Your task to perform on an android device: Go to wifi settings Image 0: 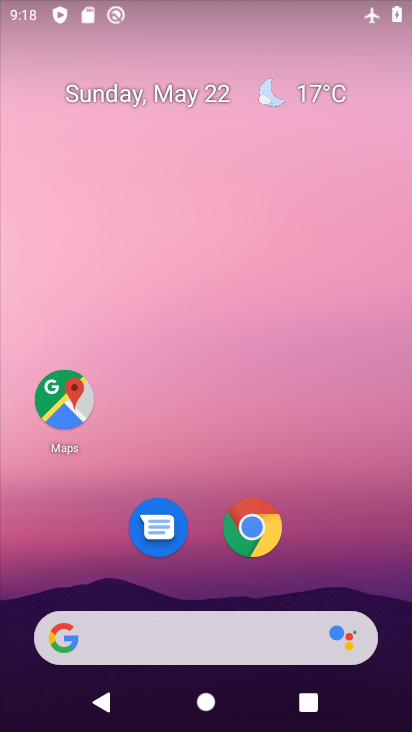
Step 0: drag from (323, 536) to (289, 30)
Your task to perform on an android device: Go to wifi settings Image 1: 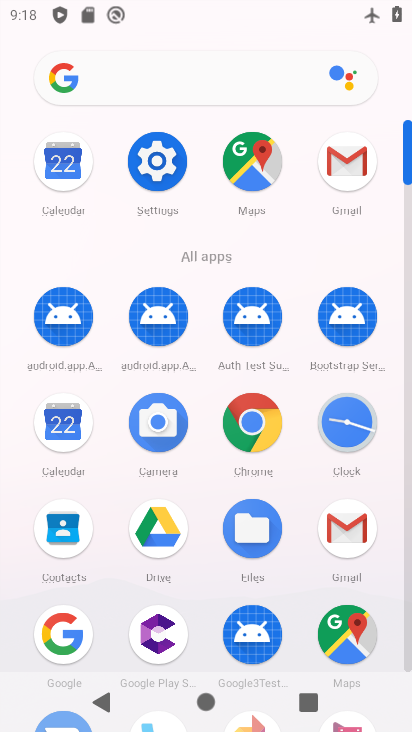
Step 1: click (162, 163)
Your task to perform on an android device: Go to wifi settings Image 2: 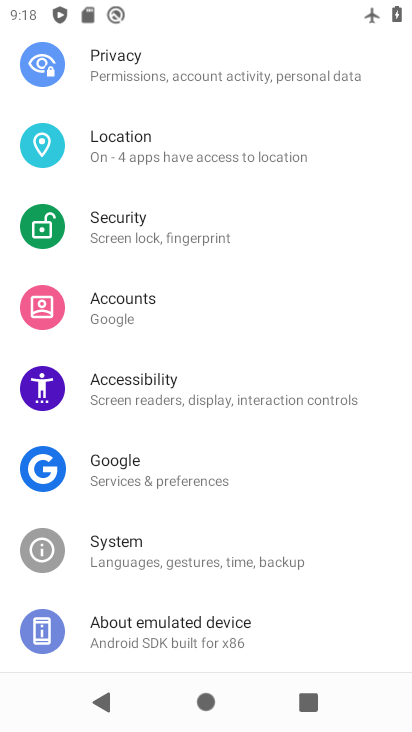
Step 2: drag from (165, 564) to (163, 671)
Your task to perform on an android device: Go to wifi settings Image 3: 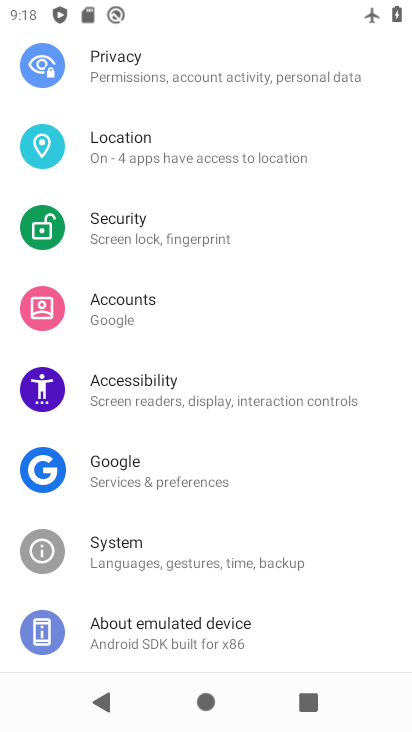
Step 3: drag from (235, 383) to (246, 495)
Your task to perform on an android device: Go to wifi settings Image 4: 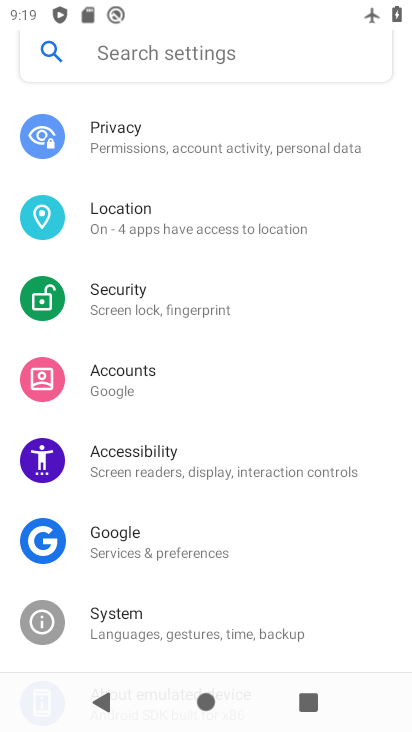
Step 4: drag from (308, 288) to (324, 731)
Your task to perform on an android device: Go to wifi settings Image 5: 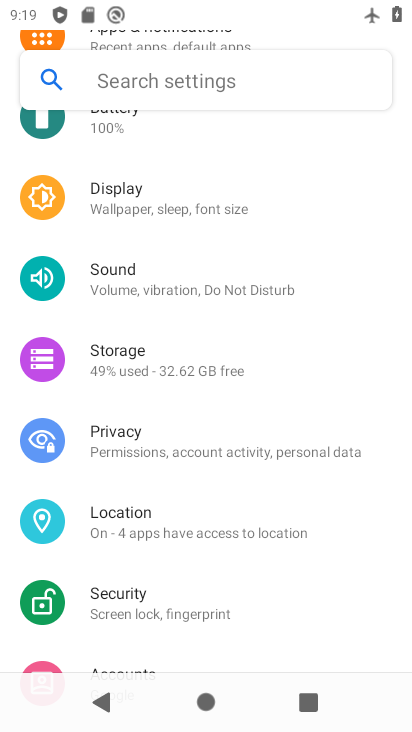
Step 5: drag from (277, 162) to (290, 509)
Your task to perform on an android device: Go to wifi settings Image 6: 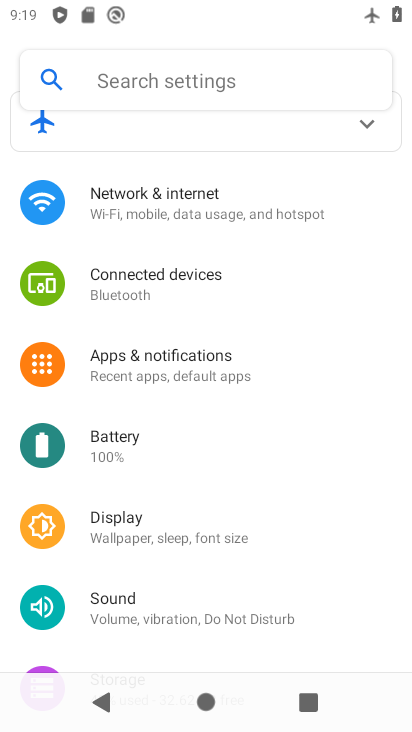
Step 6: click (155, 198)
Your task to perform on an android device: Go to wifi settings Image 7: 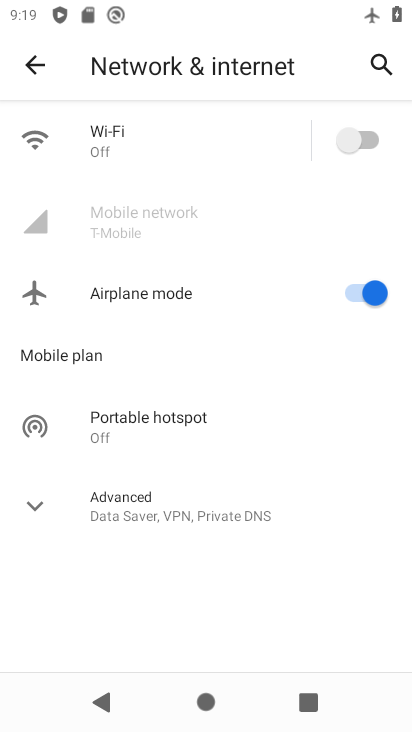
Step 7: click (133, 132)
Your task to perform on an android device: Go to wifi settings Image 8: 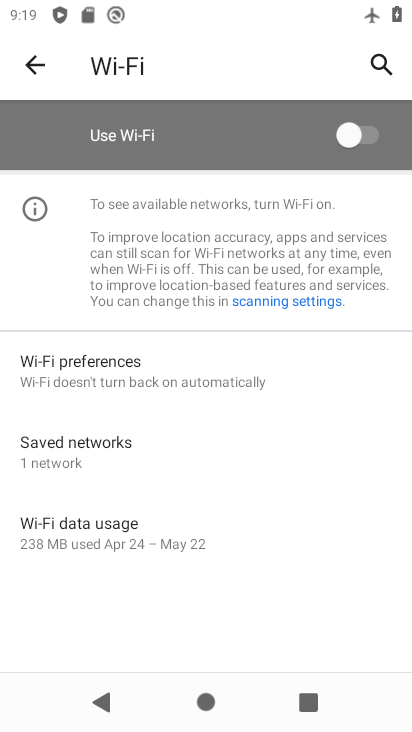
Step 8: task complete